Your task to perform on an android device: change keyboard looks Image 0: 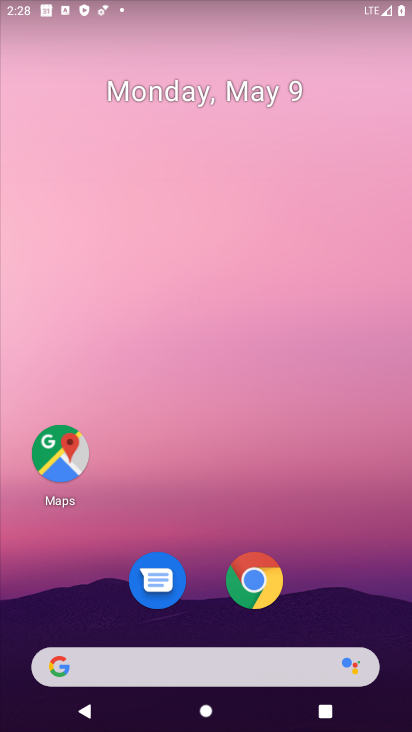
Step 0: drag from (299, 535) to (223, 115)
Your task to perform on an android device: change keyboard looks Image 1: 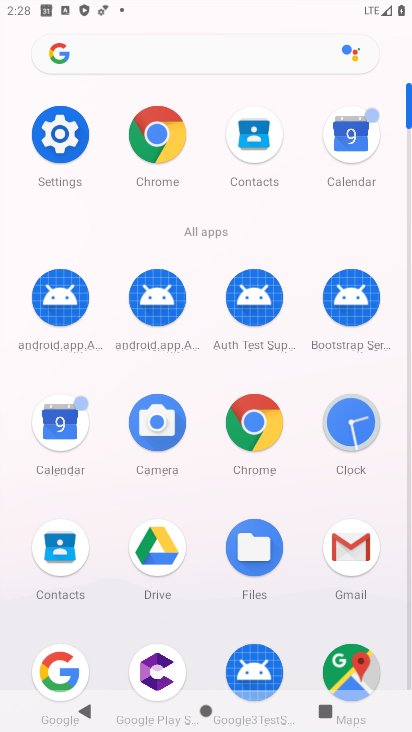
Step 1: click (76, 141)
Your task to perform on an android device: change keyboard looks Image 2: 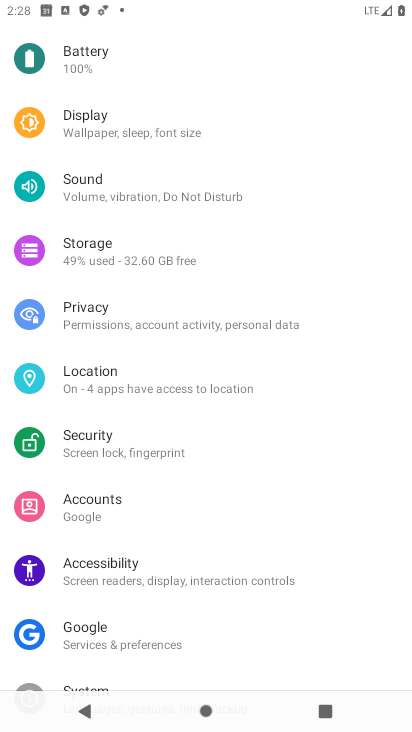
Step 2: drag from (271, 610) to (220, 208)
Your task to perform on an android device: change keyboard looks Image 3: 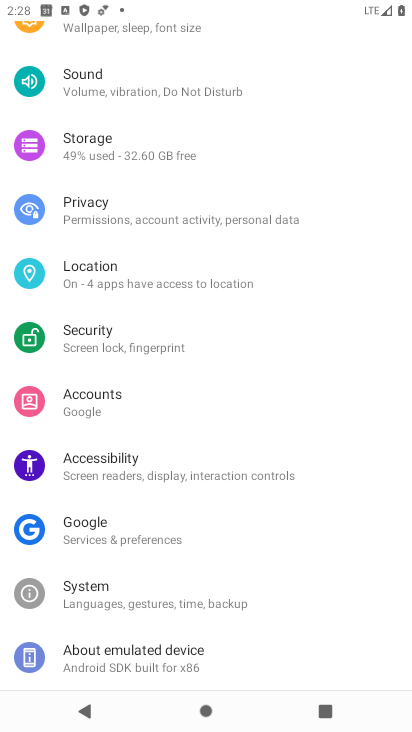
Step 3: click (145, 596)
Your task to perform on an android device: change keyboard looks Image 4: 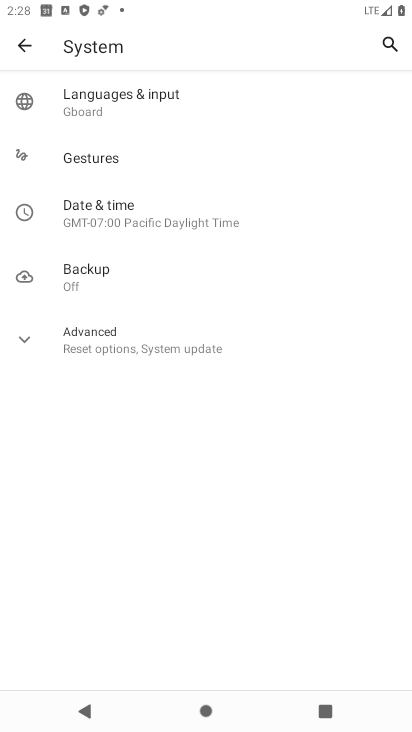
Step 4: click (117, 104)
Your task to perform on an android device: change keyboard looks Image 5: 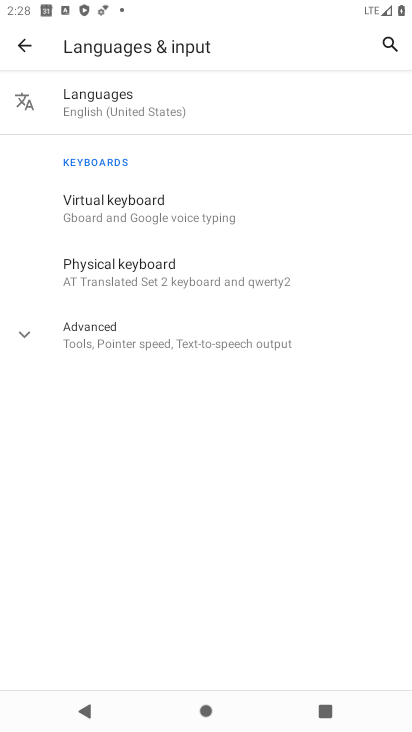
Step 5: click (118, 217)
Your task to perform on an android device: change keyboard looks Image 6: 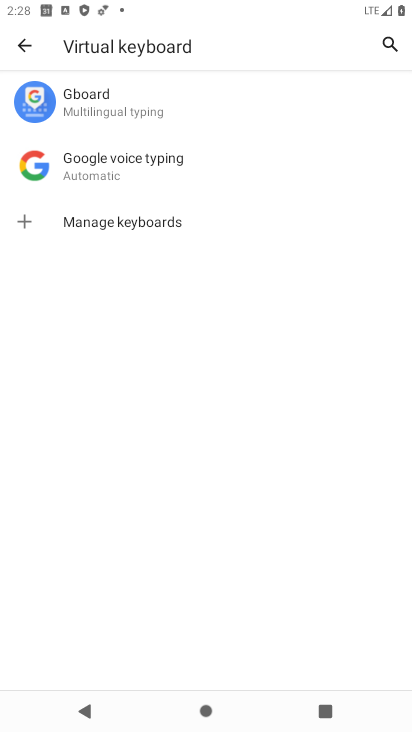
Step 6: click (130, 103)
Your task to perform on an android device: change keyboard looks Image 7: 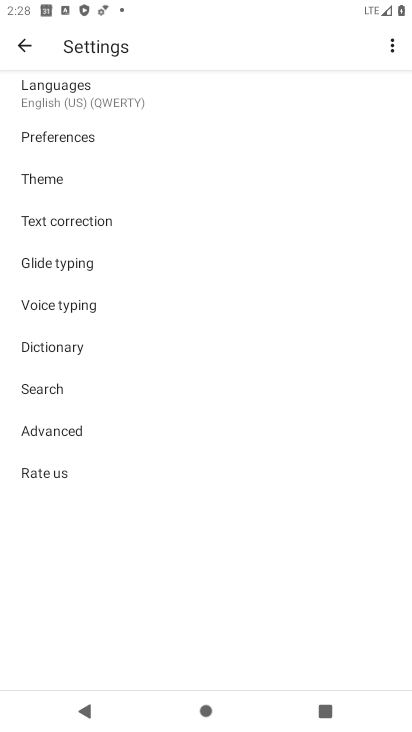
Step 7: click (89, 181)
Your task to perform on an android device: change keyboard looks Image 8: 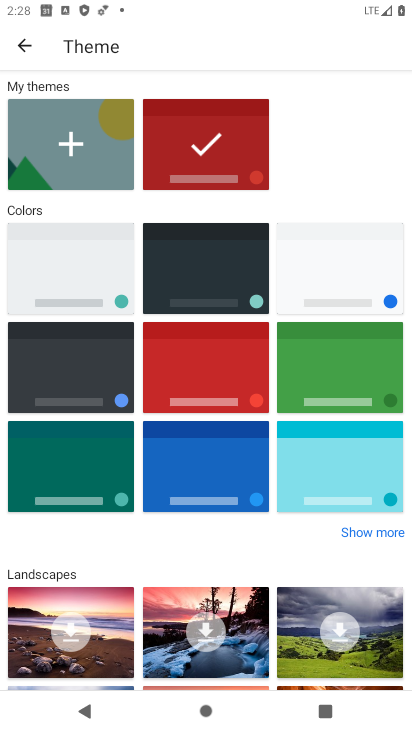
Step 8: click (218, 491)
Your task to perform on an android device: change keyboard looks Image 9: 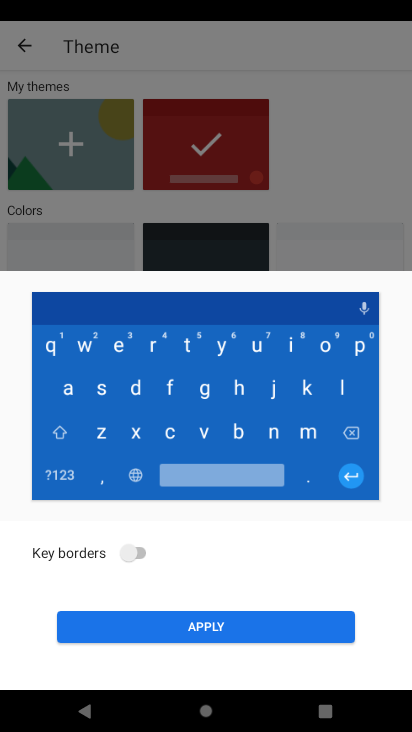
Step 9: click (212, 641)
Your task to perform on an android device: change keyboard looks Image 10: 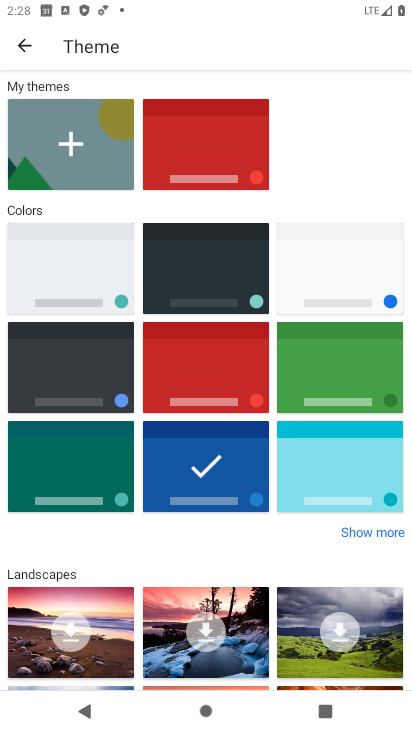
Step 10: task complete